Your task to perform on an android device: allow cookies in the chrome app Image 0: 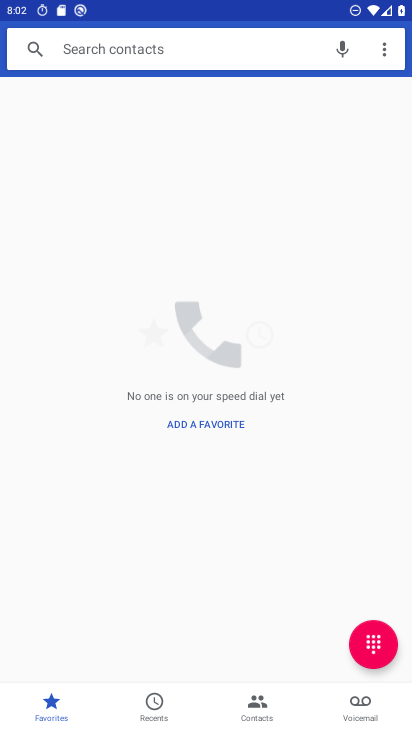
Step 0: press home button
Your task to perform on an android device: allow cookies in the chrome app Image 1: 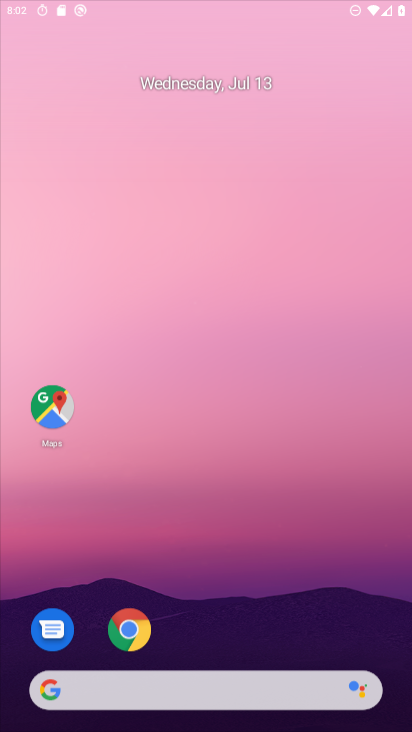
Step 1: drag from (394, 632) to (313, 75)
Your task to perform on an android device: allow cookies in the chrome app Image 2: 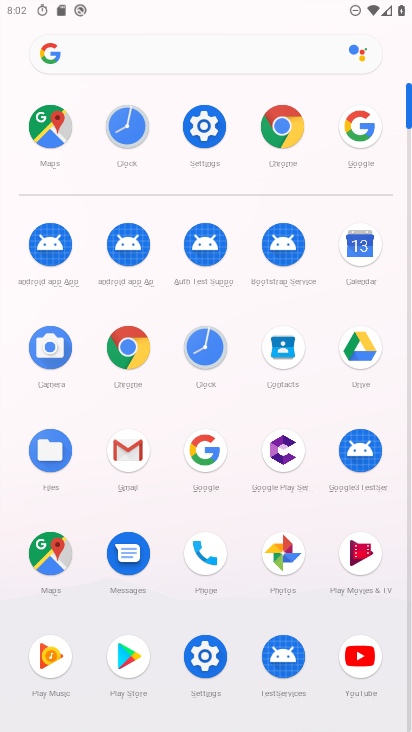
Step 2: click (296, 119)
Your task to perform on an android device: allow cookies in the chrome app Image 3: 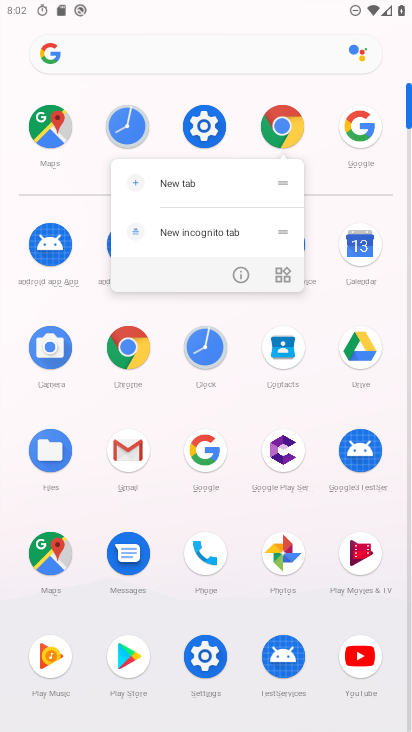
Step 3: click (295, 117)
Your task to perform on an android device: allow cookies in the chrome app Image 4: 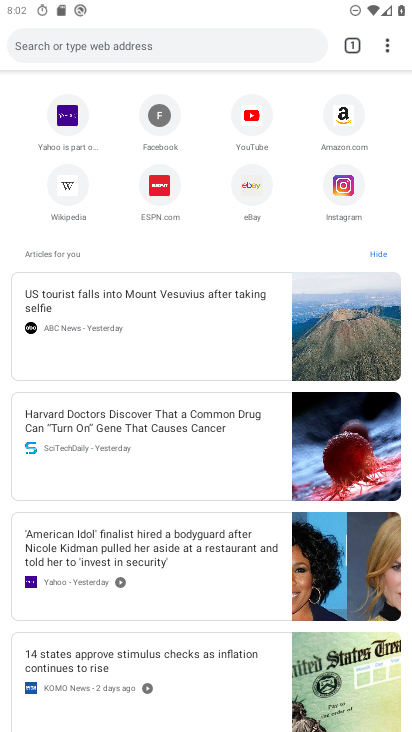
Step 4: click (389, 44)
Your task to perform on an android device: allow cookies in the chrome app Image 5: 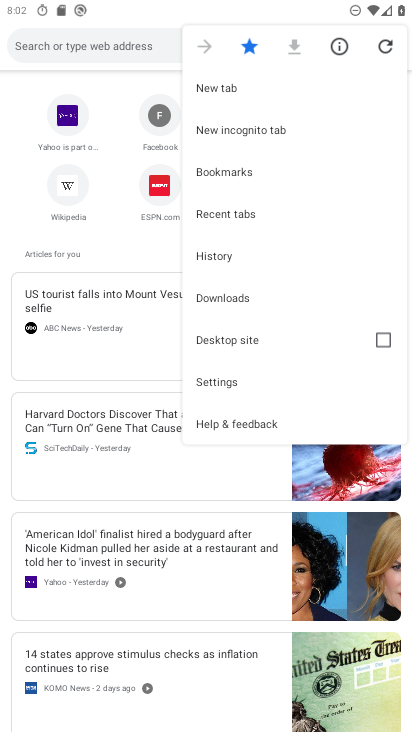
Step 5: click (226, 258)
Your task to perform on an android device: allow cookies in the chrome app Image 6: 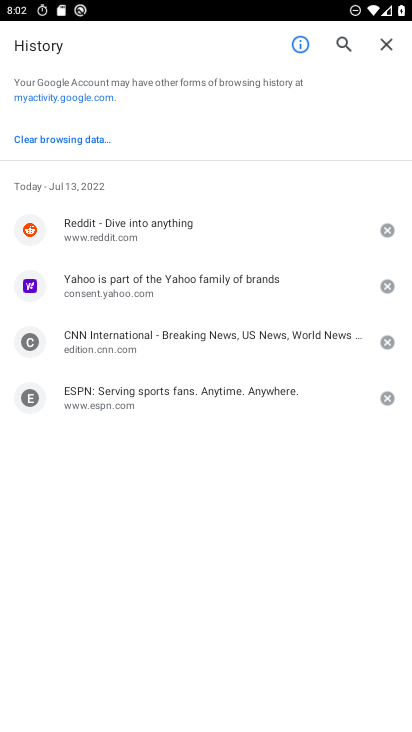
Step 6: click (50, 145)
Your task to perform on an android device: allow cookies in the chrome app Image 7: 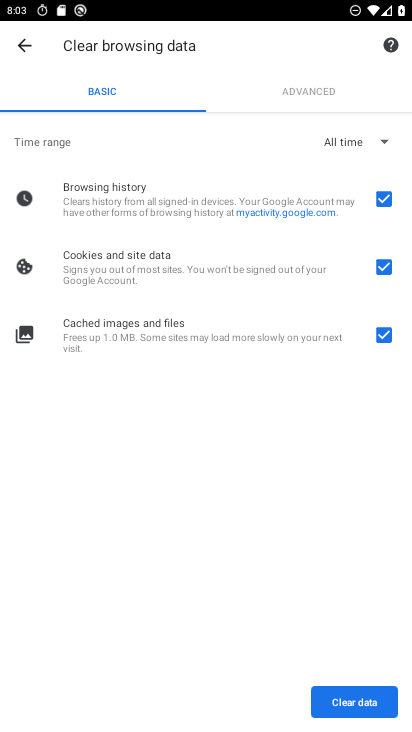
Step 7: task complete